Your task to perform on an android device: delete the emails in spam in the gmail app Image 0: 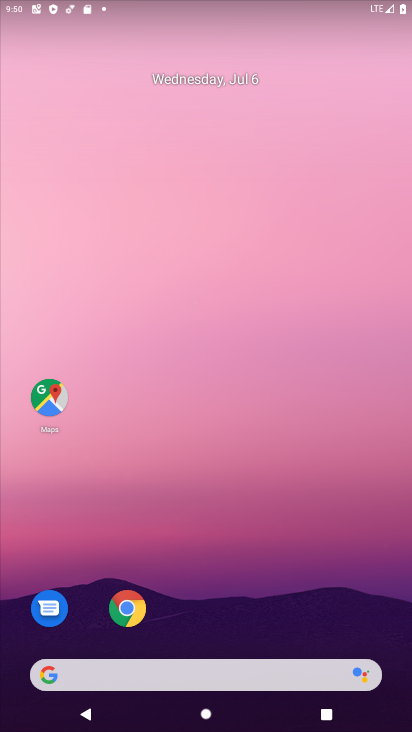
Step 0: drag from (206, 565) to (214, 0)
Your task to perform on an android device: delete the emails in spam in the gmail app Image 1: 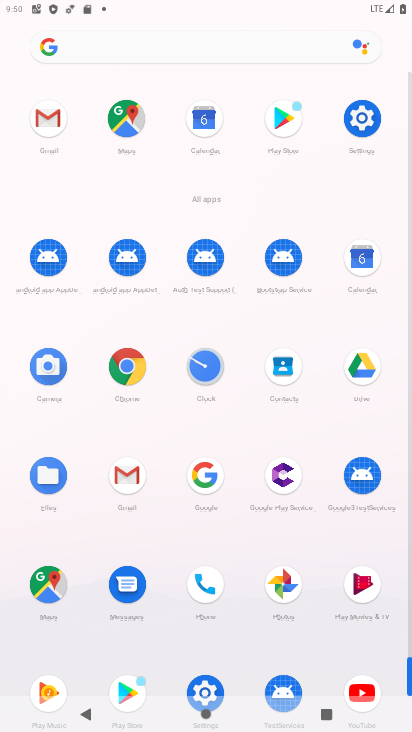
Step 1: click (42, 117)
Your task to perform on an android device: delete the emails in spam in the gmail app Image 2: 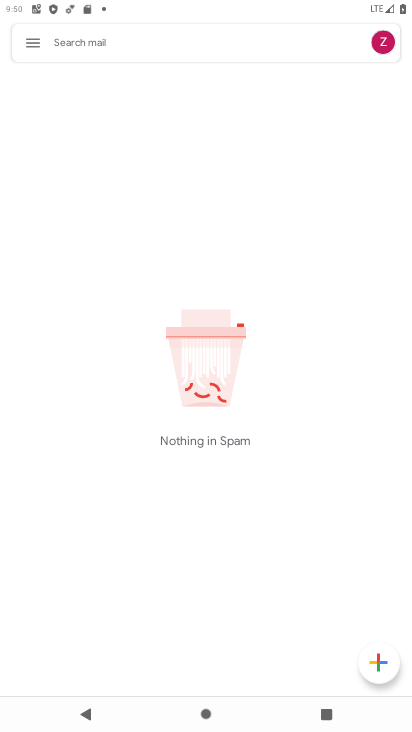
Step 2: click (33, 43)
Your task to perform on an android device: delete the emails in spam in the gmail app Image 3: 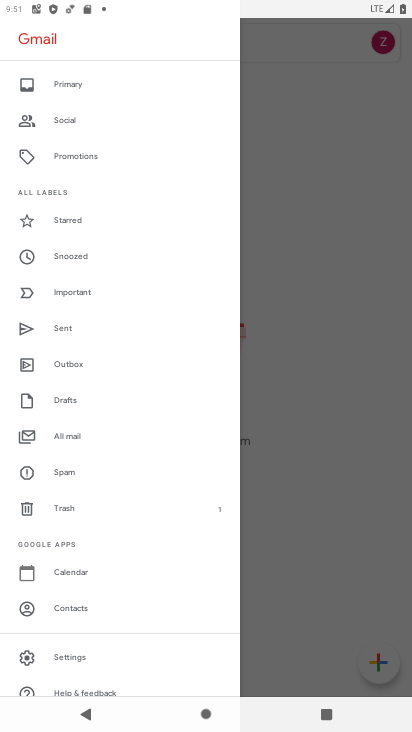
Step 3: click (68, 473)
Your task to perform on an android device: delete the emails in spam in the gmail app Image 4: 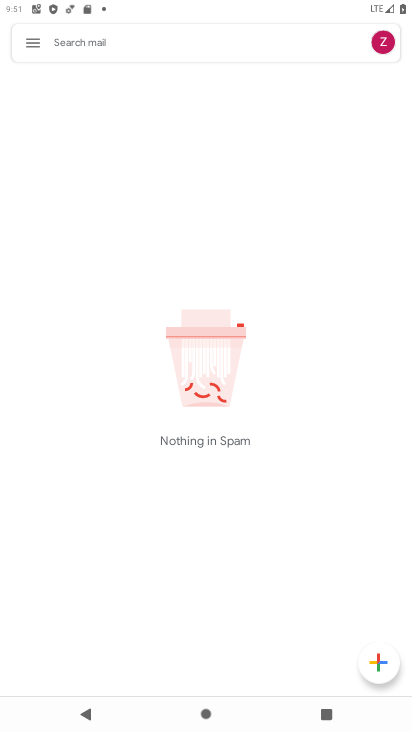
Step 4: task complete